Your task to perform on an android device: open chrome privacy settings Image 0: 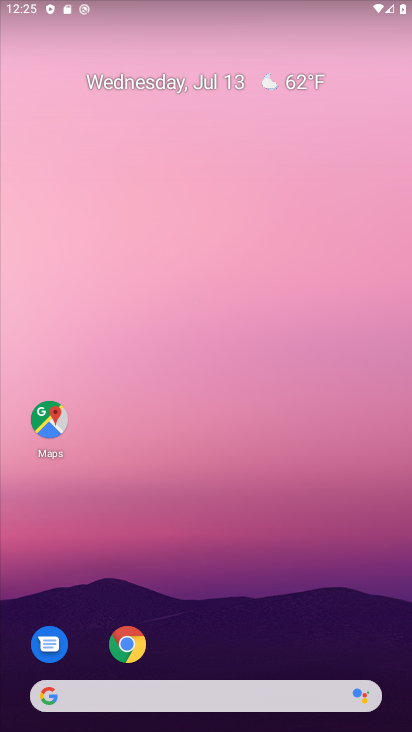
Step 0: drag from (220, 660) to (212, 10)
Your task to perform on an android device: open chrome privacy settings Image 1: 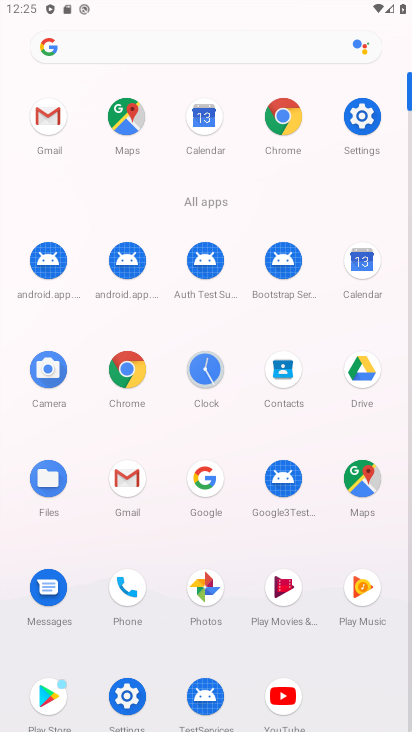
Step 1: click (271, 115)
Your task to perform on an android device: open chrome privacy settings Image 2: 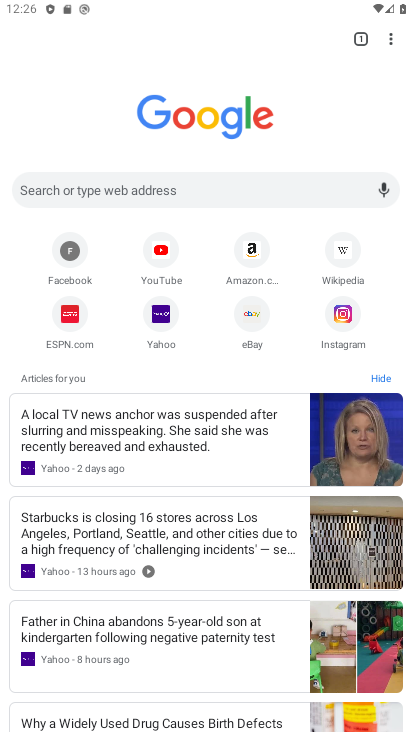
Step 2: click (390, 40)
Your task to perform on an android device: open chrome privacy settings Image 3: 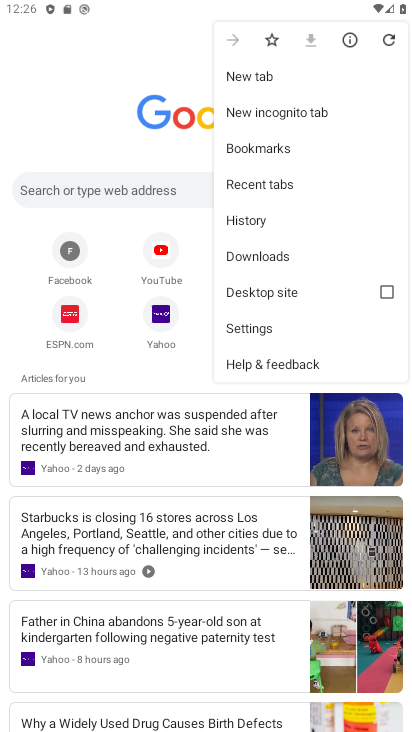
Step 3: click (246, 323)
Your task to perform on an android device: open chrome privacy settings Image 4: 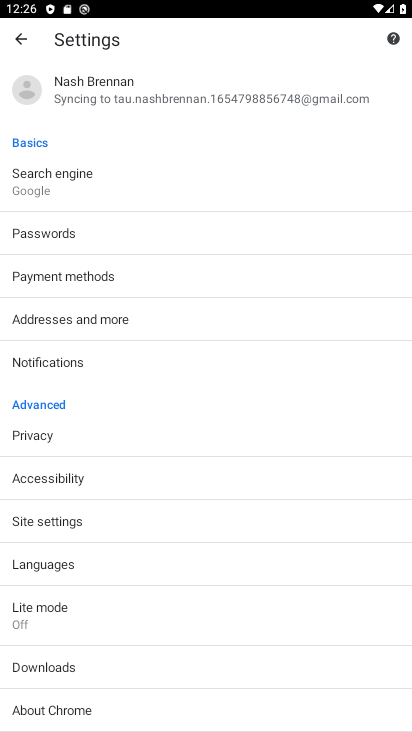
Step 4: click (50, 439)
Your task to perform on an android device: open chrome privacy settings Image 5: 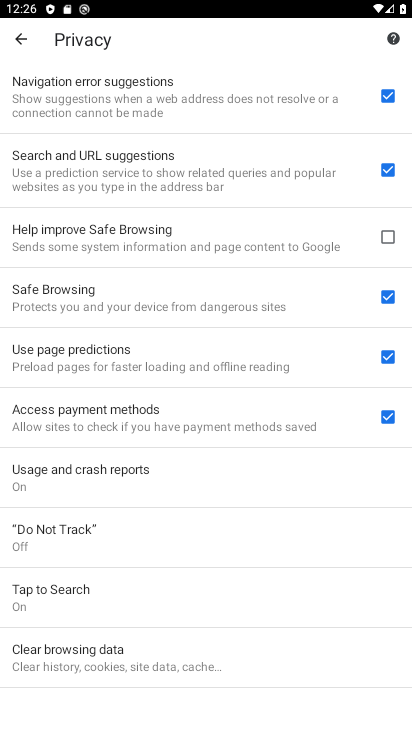
Step 5: task complete